Your task to perform on an android device: When is my next meeting? Image 0: 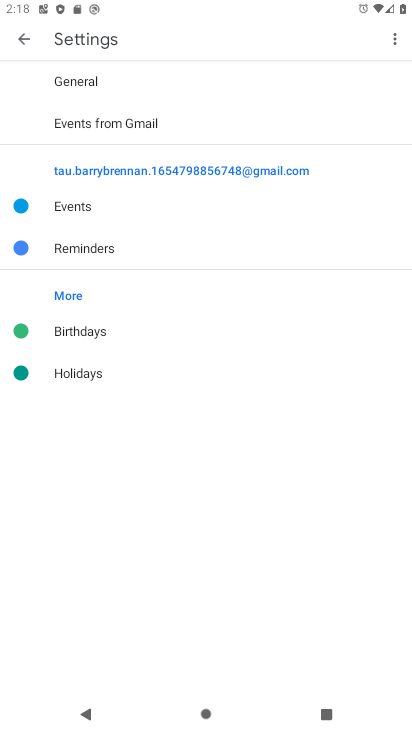
Step 0: drag from (126, 12) to (132, 603)
Your task to perform on an android device: When is my next meeting? Image 1: 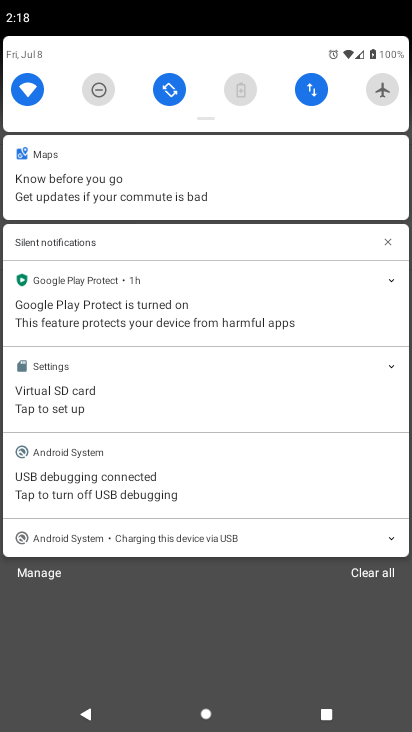
Step 1: drag from (193, 73) to (209, 602)
Your task to perform on an android device: When is my next meeting? Image 2: 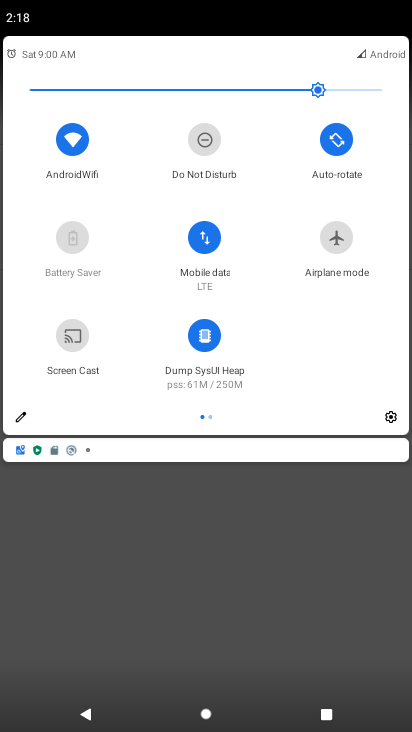
Step 2: press home button
Your task to perform on an android device: When is my next meeting? Image 3: 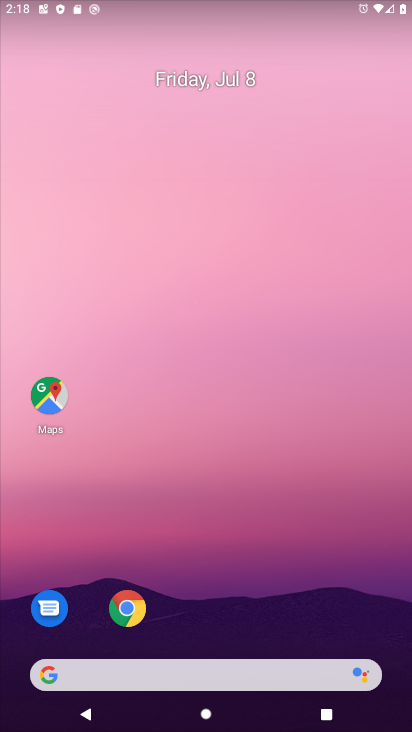
Step 3: click (182, 66)
Your task to perform on an android device: When is my next meeting? Image 4: 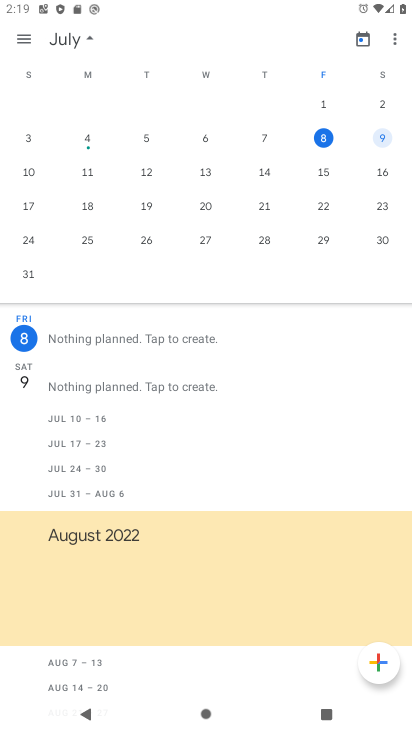
Step 4: task complete